Your task to perform on an android device: Open notification settings Image 0: 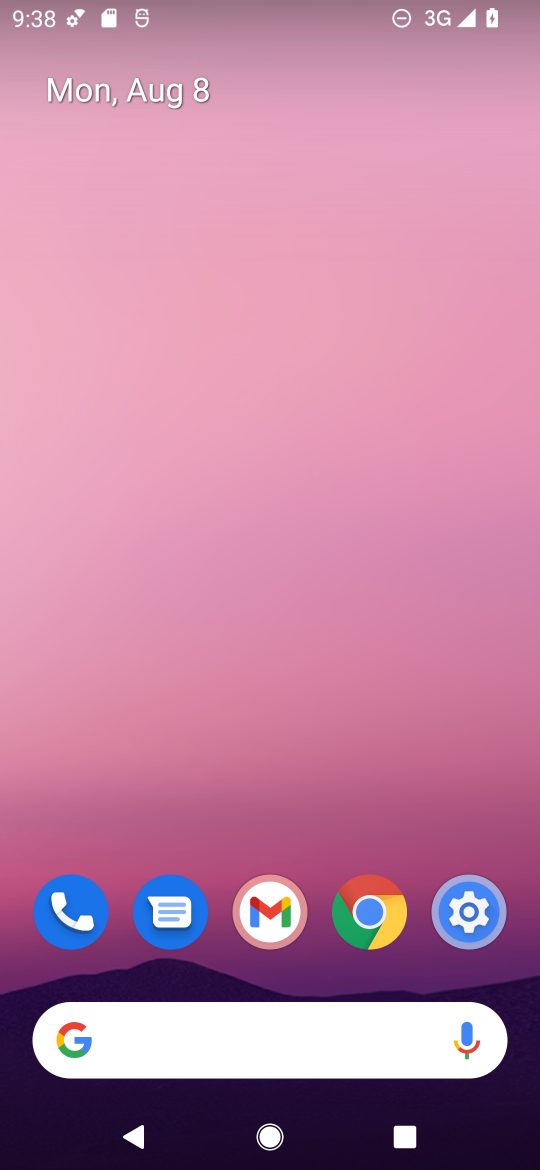
Step 0: drag from (526, 920) to (529, 81)
Your task to perform on an android device: Open notification settings Image 1: 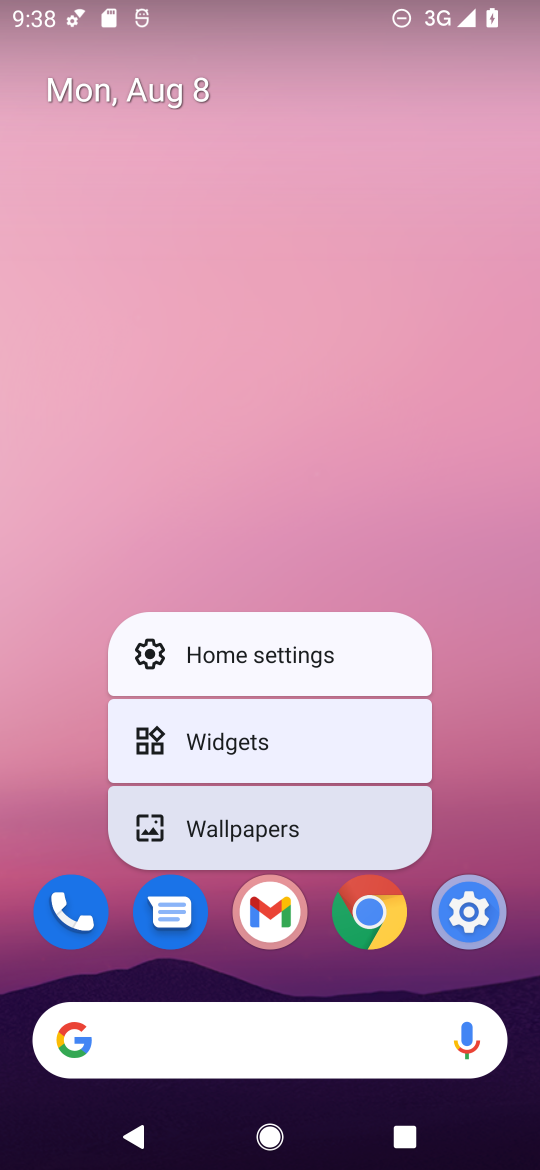
Step 1: drag from (513, 965) to (391, 0)
Your task to perform on an android device: Open notification settings Image 2: 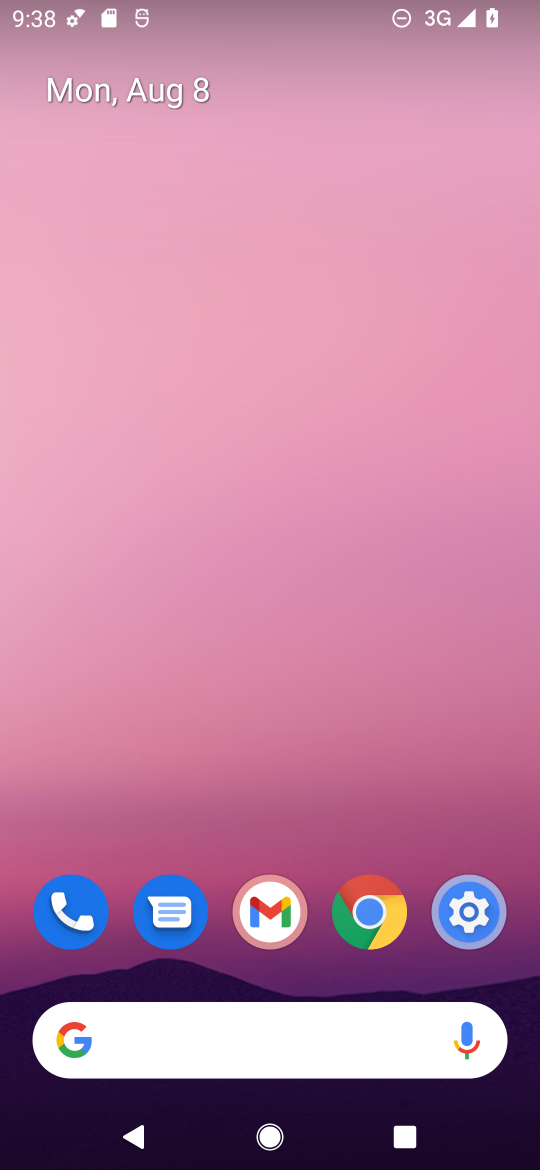
Step 2: drag from (500, 953) to (369, 7)
Your task to perform on an android device: Open notification settings Image 3: 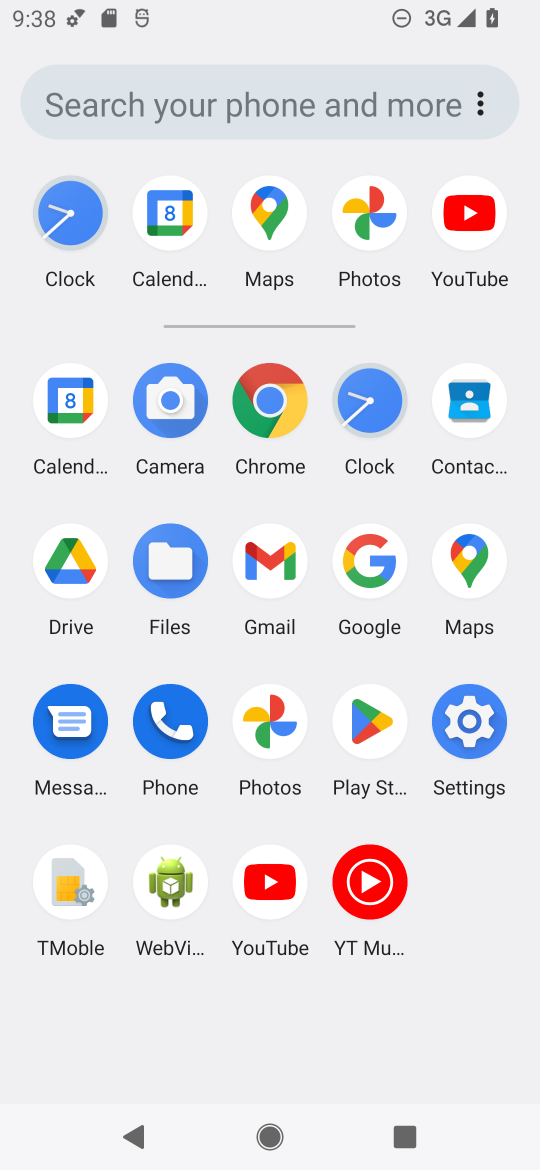
Step 3: click (478, 729)
Your task to perform on an android device: Open notification settings Image 4: 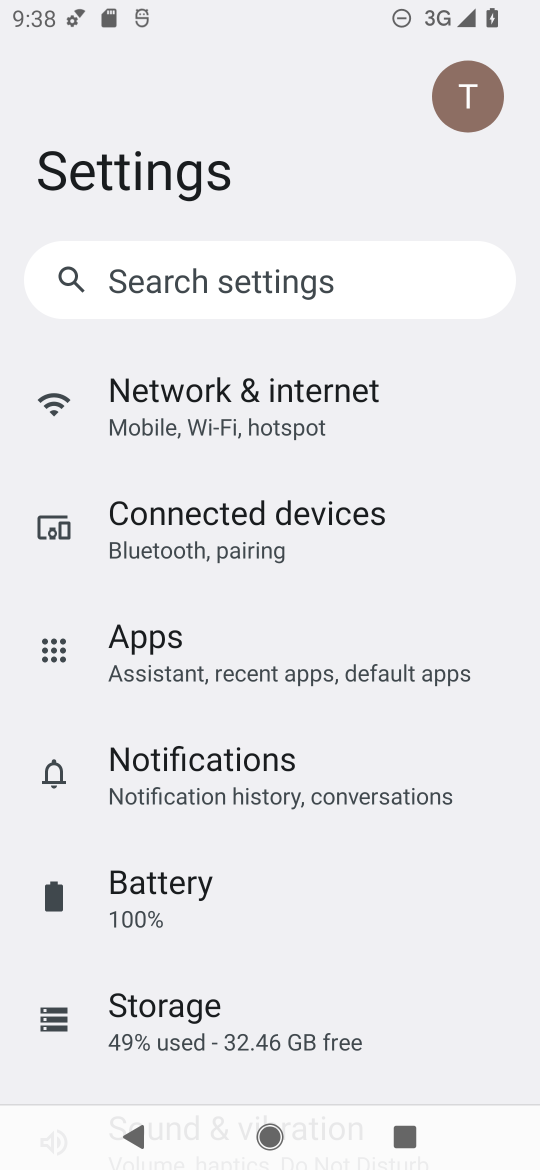
Step 4: drag from (167, 1003) to (225, 730)
Your task to perform on an android device: Open notification settings Image 5: 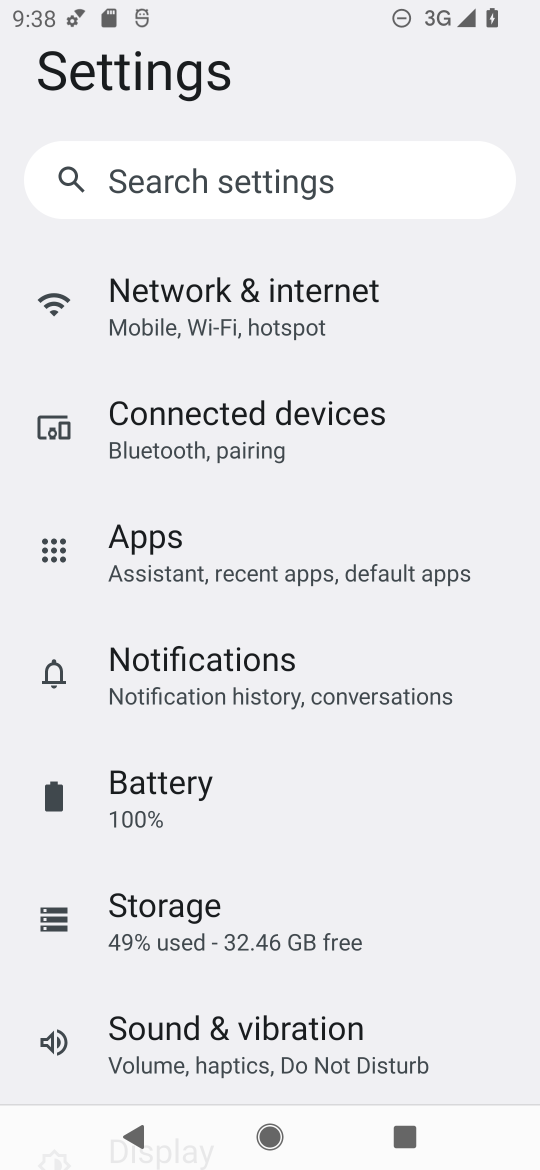
Step 5: click (101, 637)
Your task to perform on an android device: Open notification settings Image 6: 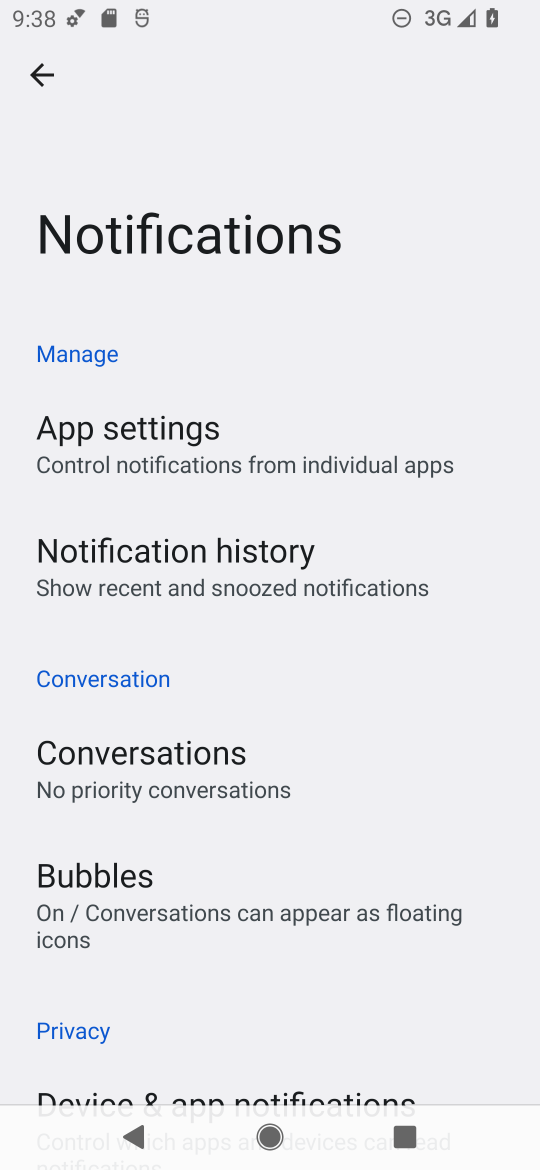
Step 6: task complete